Your task to perform on an android device: set default search engine in the chrome app Image 0: 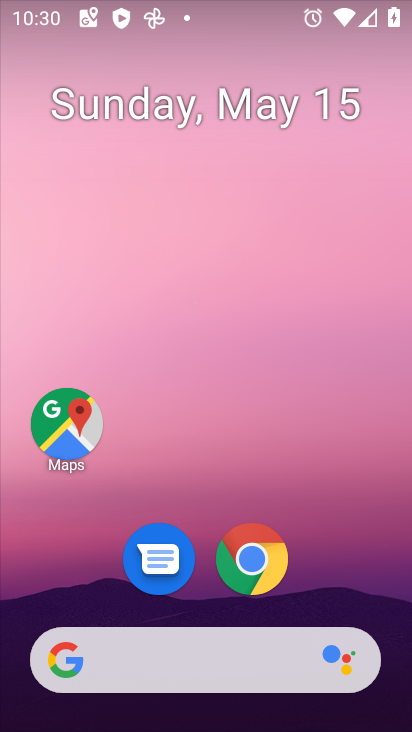
Step 0: click (239, 559)
Your task to perform on an android device: set default search engine in the chrome app Image 1: 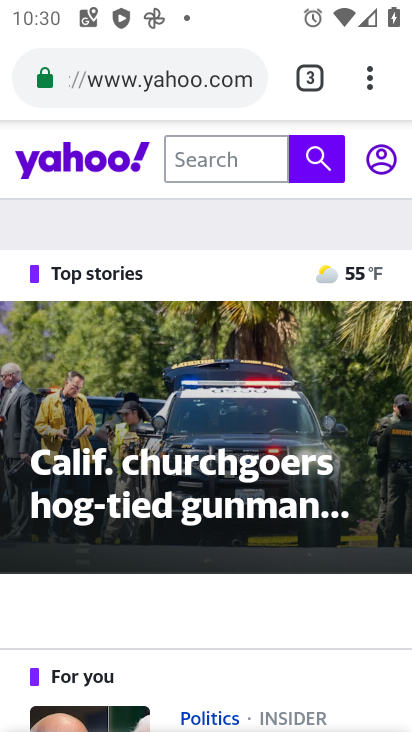
Step 1: click (370, 93)
Your task to perform on an android device: set default search engine in the chrome app Image 2: 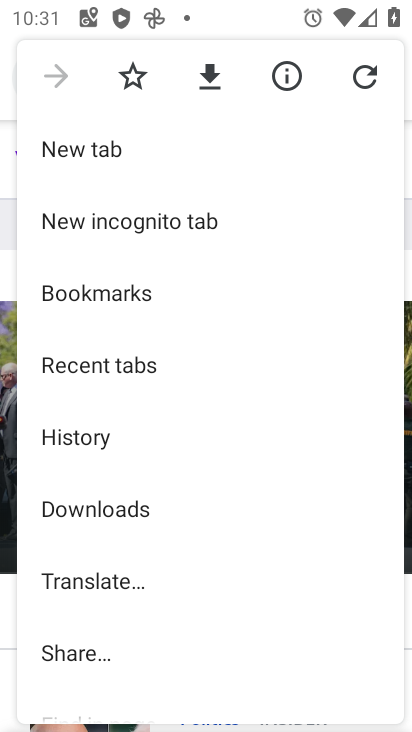
Step 2: drag from (229, 619) to (224, 303)
Your task to perform on an android device: set default search engine in the chrome app Image 3: 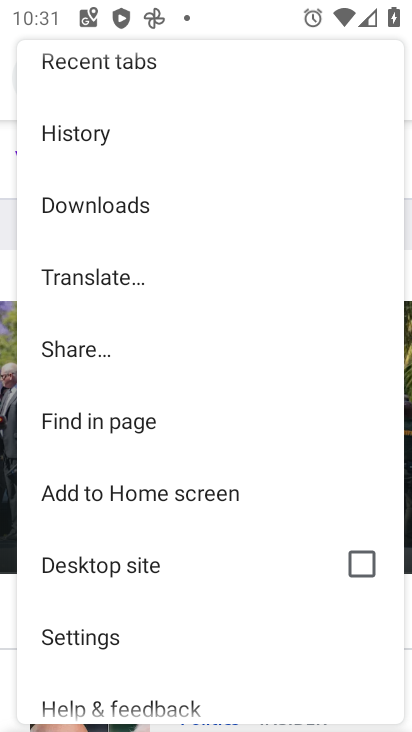
Step 3: click (226, 652)
Your task to perform on an android device: set default search engine in the chrome app Image 4: 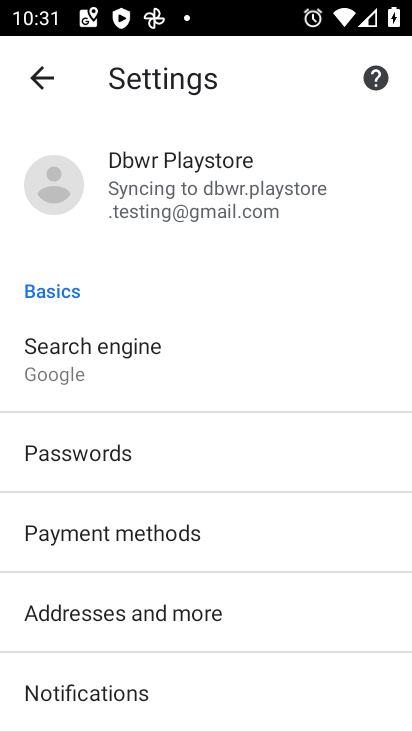
Step 4: click (183, 393)
Your task to perform on an android device: set default search engine in the chrome app Image 5: 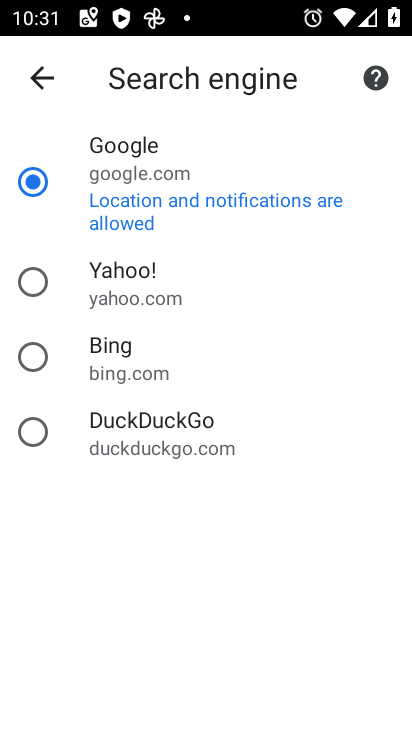
Step 5: click (196, 460)
Your task to perform on an android device: set default search engine in the chrome app Image 6: 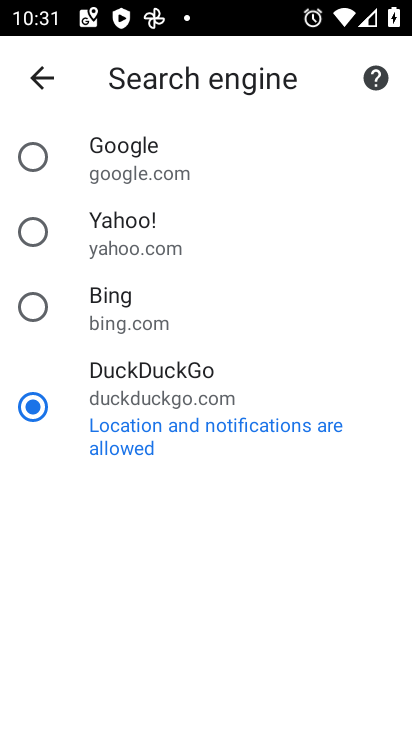
Step 6: task complete